Your task to perform on an android device: check storage Image 0: 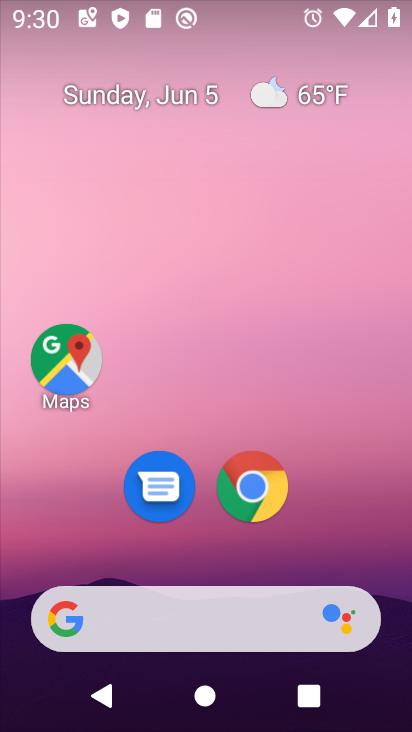
Step 0: press home button
Your task to perform on an android device: check storage Image 1: 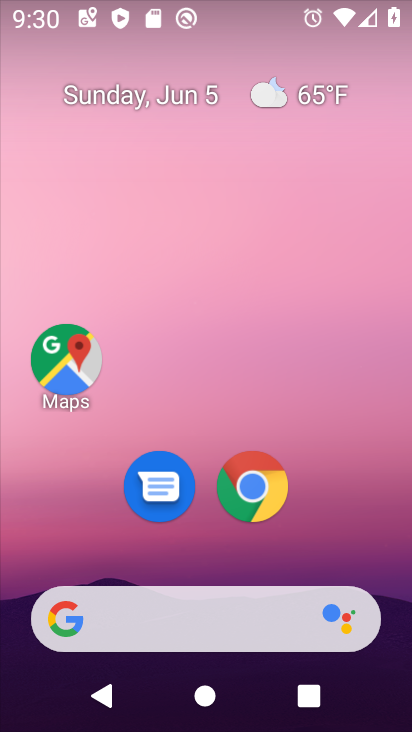
Step 1: drag from (369, 486) to (314, 136)
Your task to perform on an android device: check storage Image 2: 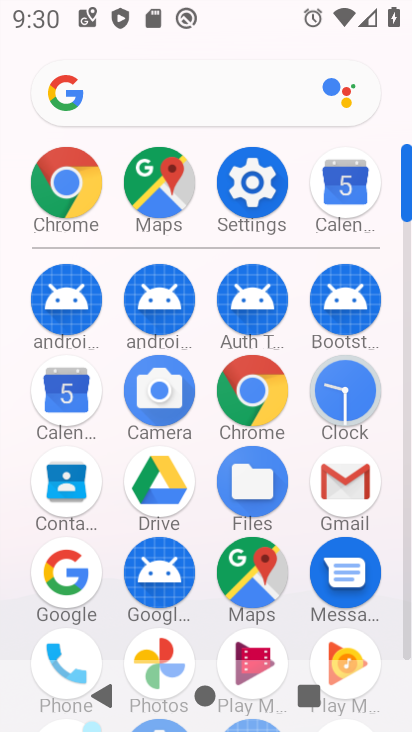
Step 2: click (245, 199)
Your task to perform on an android device: check storage Image 3: 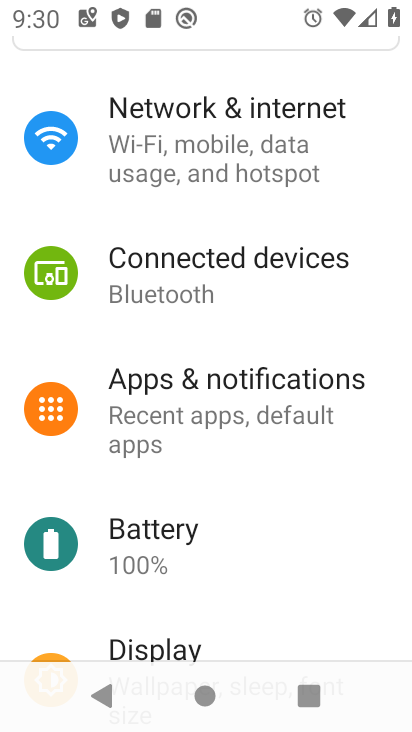
Step 3: drag from (234, 578) to (271, 343)
Your task to perform on an android device: check storage Image 4: 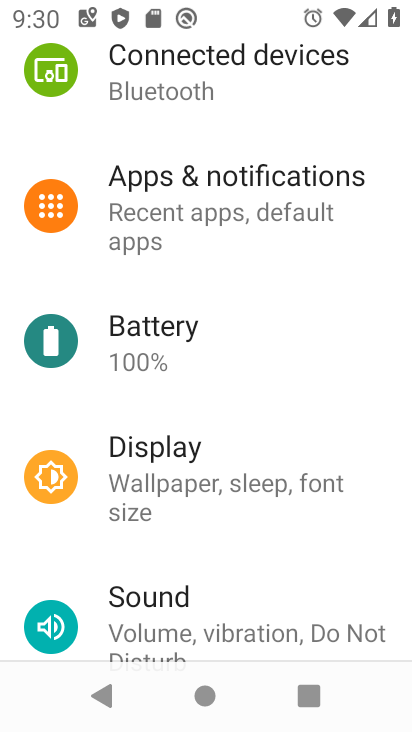
Step 4: drag from (292, 558) to (319, 315)
Your task to perform on an android device: check storage Image 5: 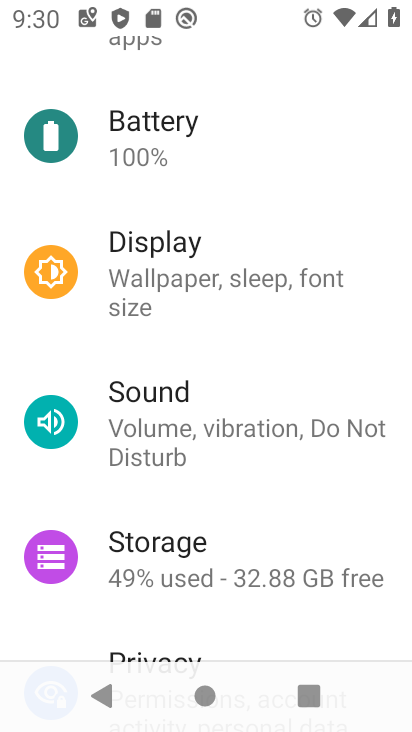
Step 5: click (174, 554)
Your task to perform on an android device: check storage Image 6: 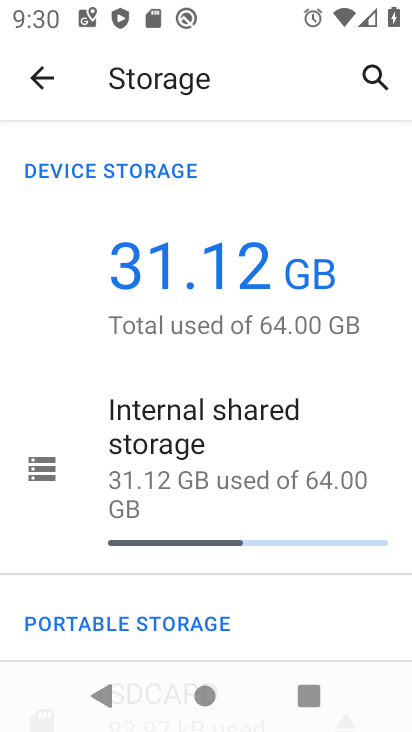
Step 6: click (56, 462)
Your task to perform on an android device: check storage Image 7: 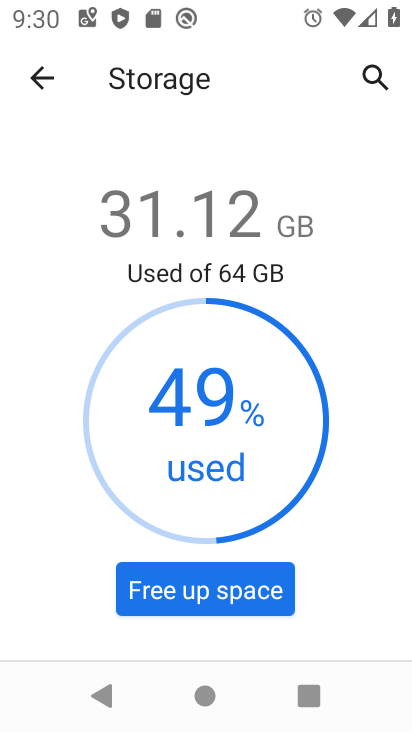
Step 7: task complete